Your task to perform on an android device: Add usb-b to the cart on ebay, then select checkout. Image 0: 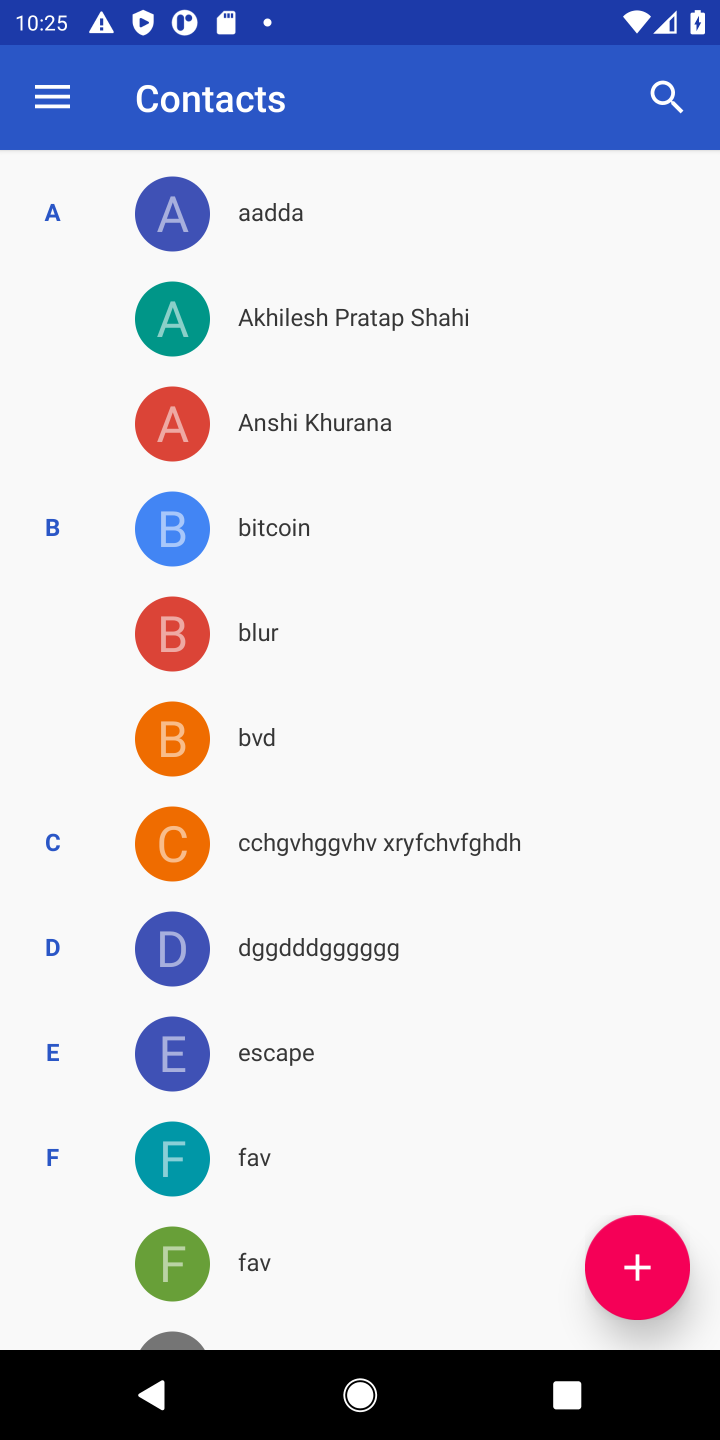
Step 0: press home button
Your task to perform on an android device: Add usb-b to the cart on ebay, then select checkout. Image 1: 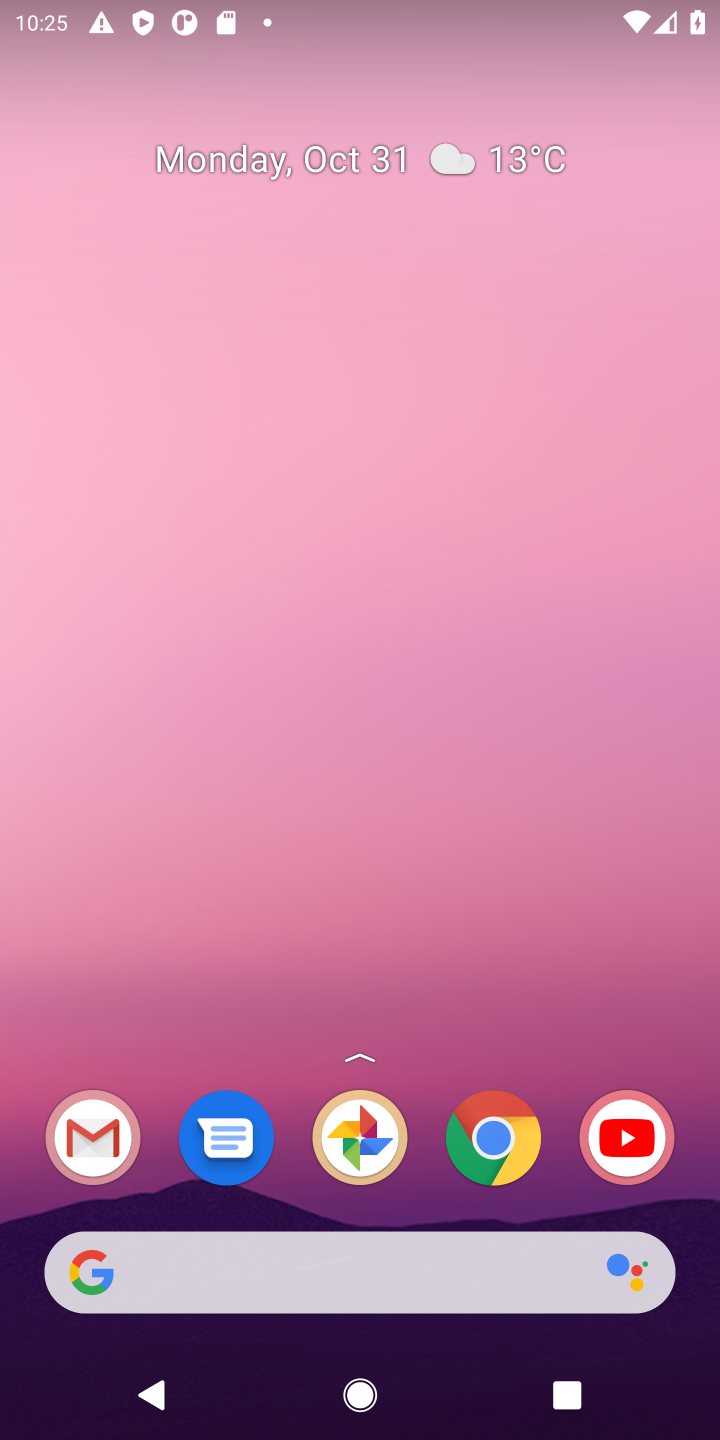
Step 1: click (529, 1133)
Your task to perform on an android device: Add usb-b to the cart on ebay, then select checkout. Image 2: 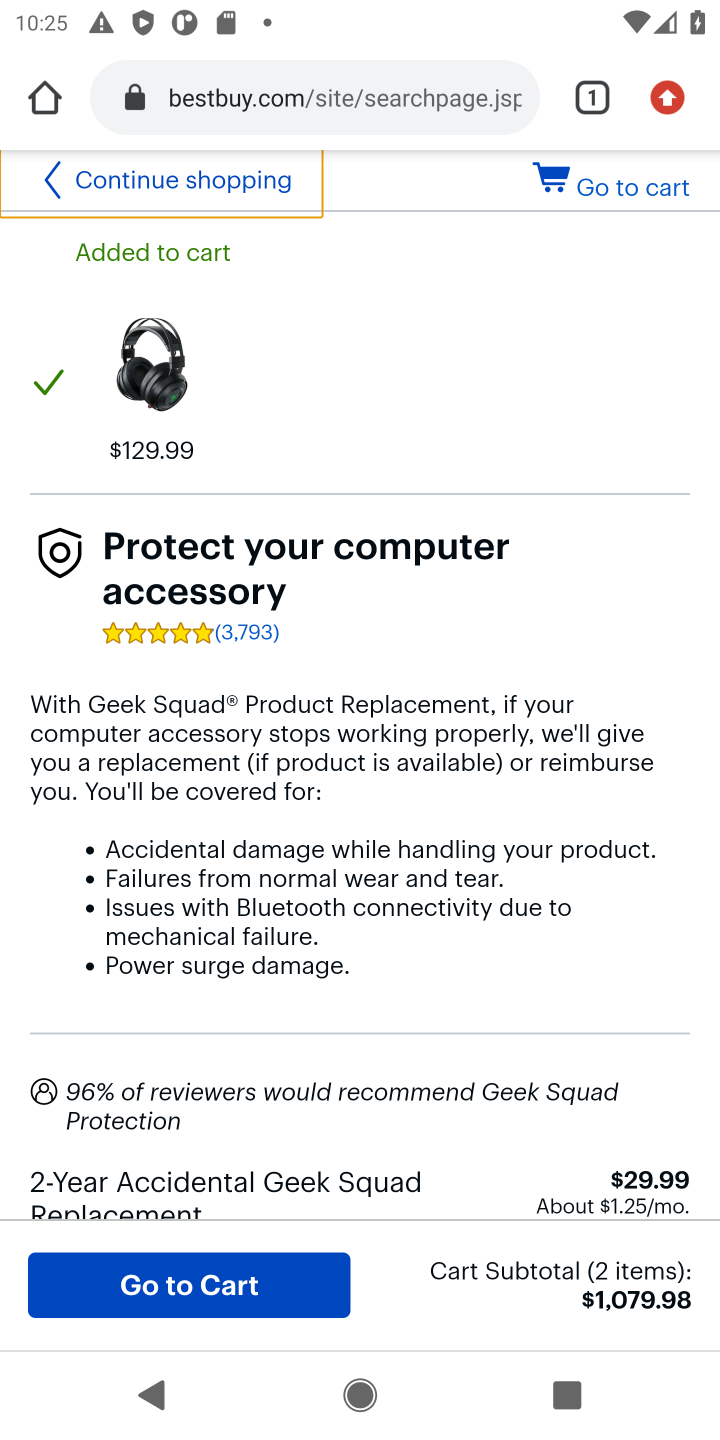
Step 2: click (417, 116)
Your task to perform on an android device: Add usb-b to the cart on ebay, then select checkout. Image 3: 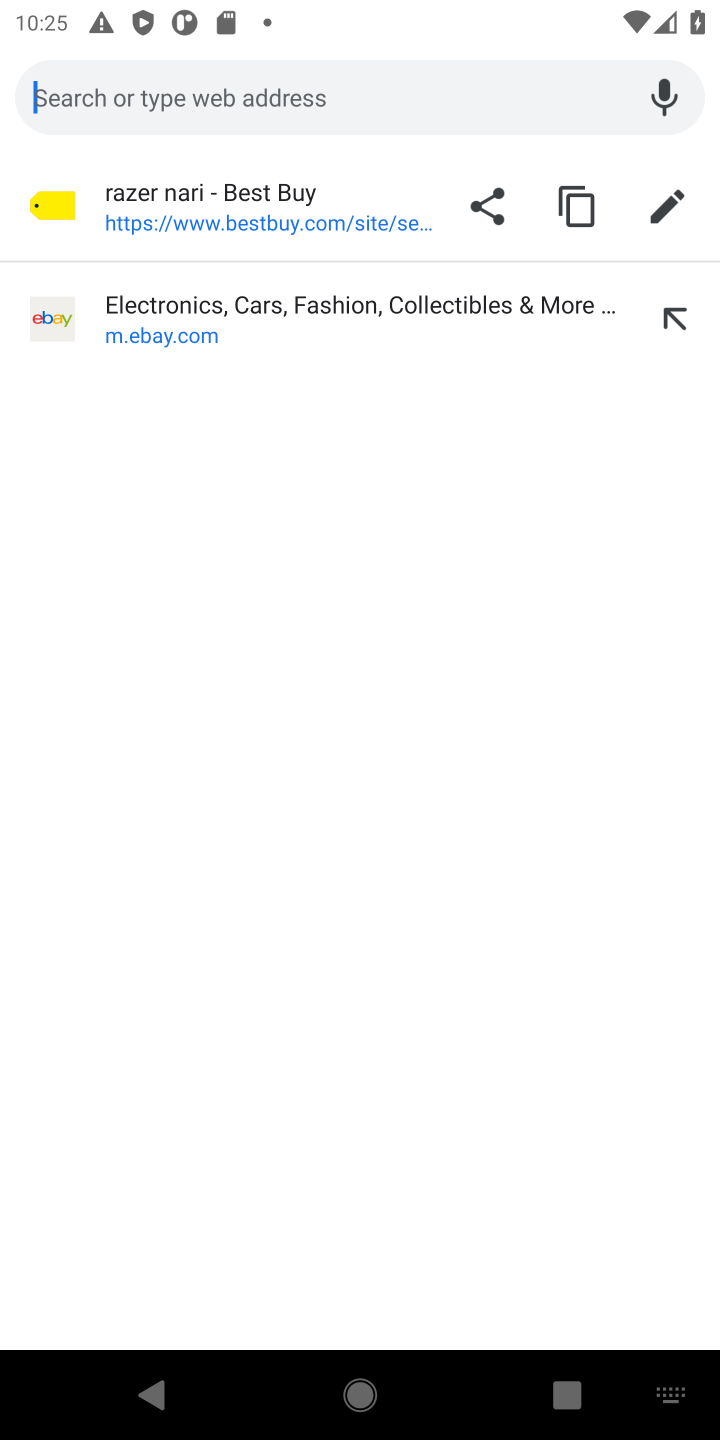
Step 3: click (217, 322)
Your task to perform on an android device: Add usb-b to the cart on ebay, then select checkout. Image 4: 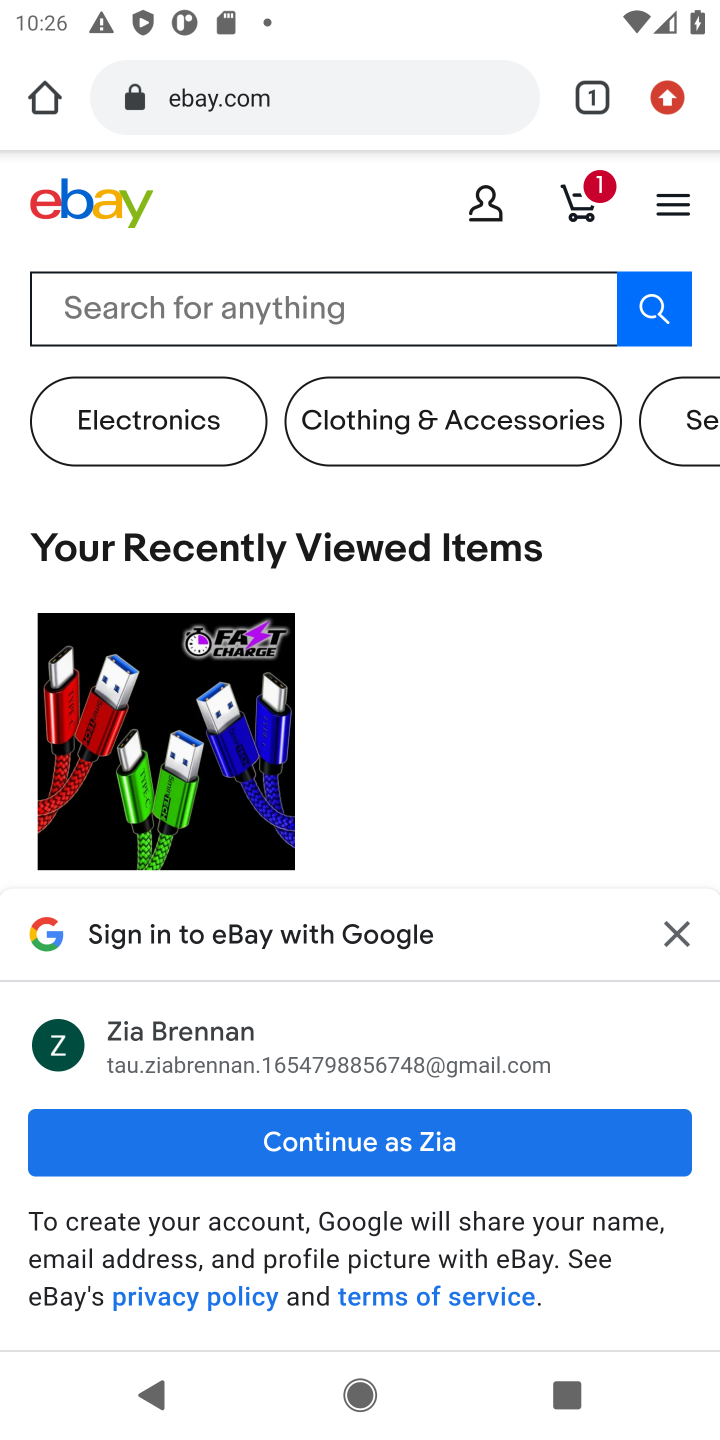
Step 4: click (169, 299)
Your task to perform on an android device: Add usb-b to the cart on ebay, then select checkout. Image 5: 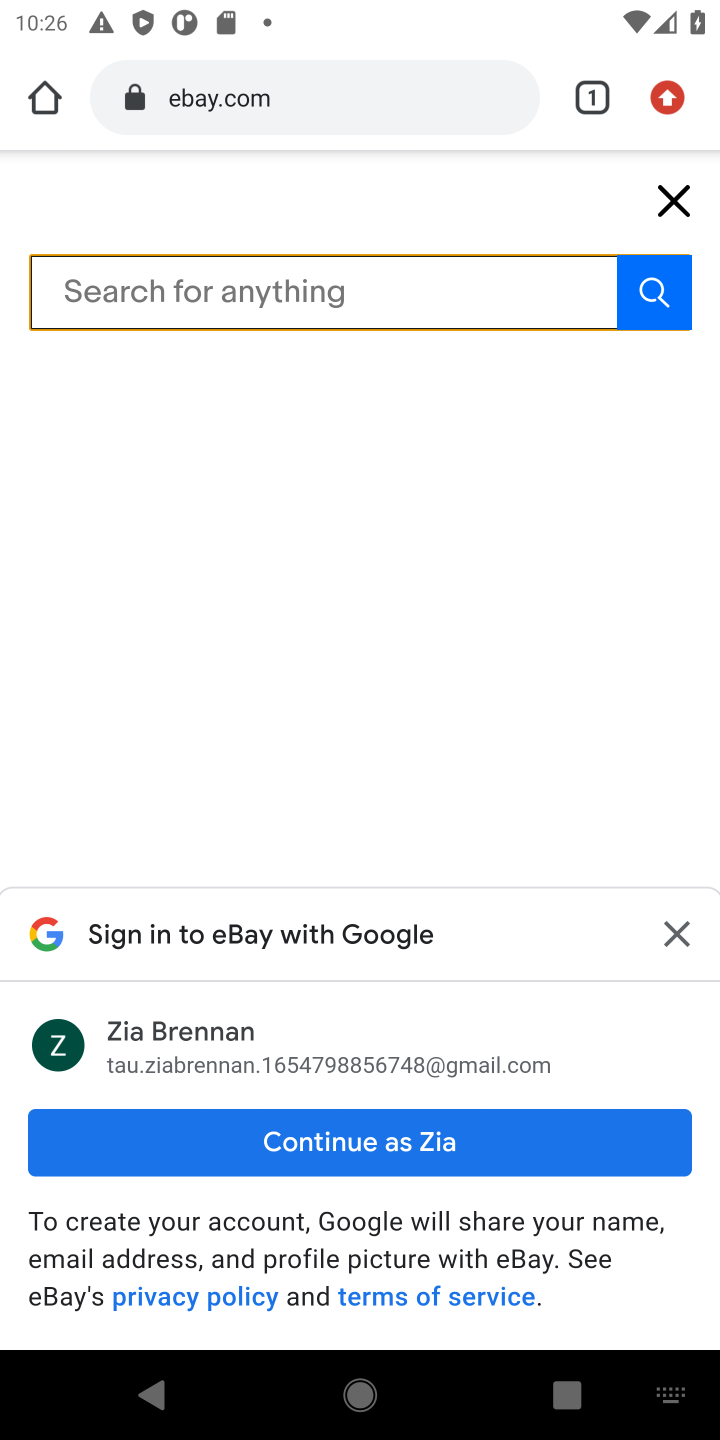
Step 5: type "usb-b "
Your task to perform on an android device: Add usb-b to the cart on ebay, then select checkout. Image 6: 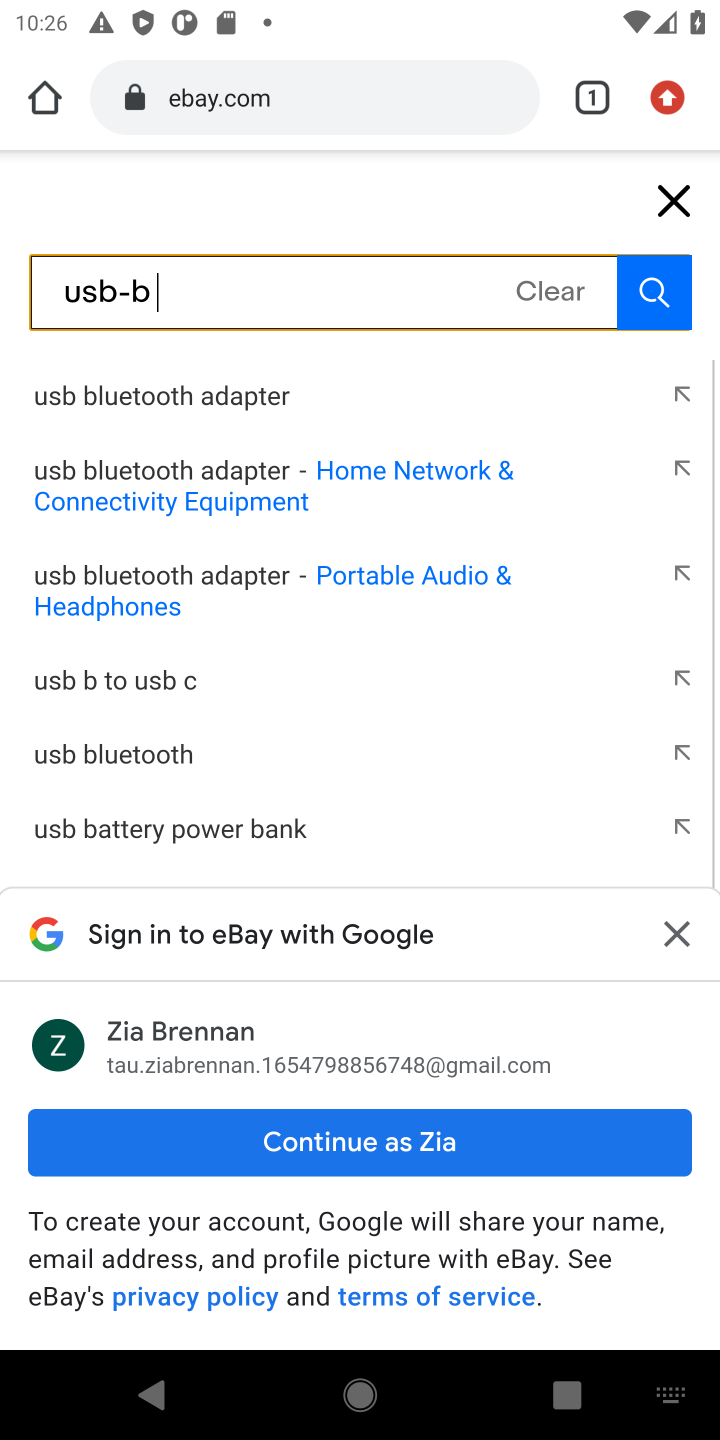
Step 6: type ""
Your task to perform on an android device: Add usb-b to the cart on ebay, then select checkout. Image 7: 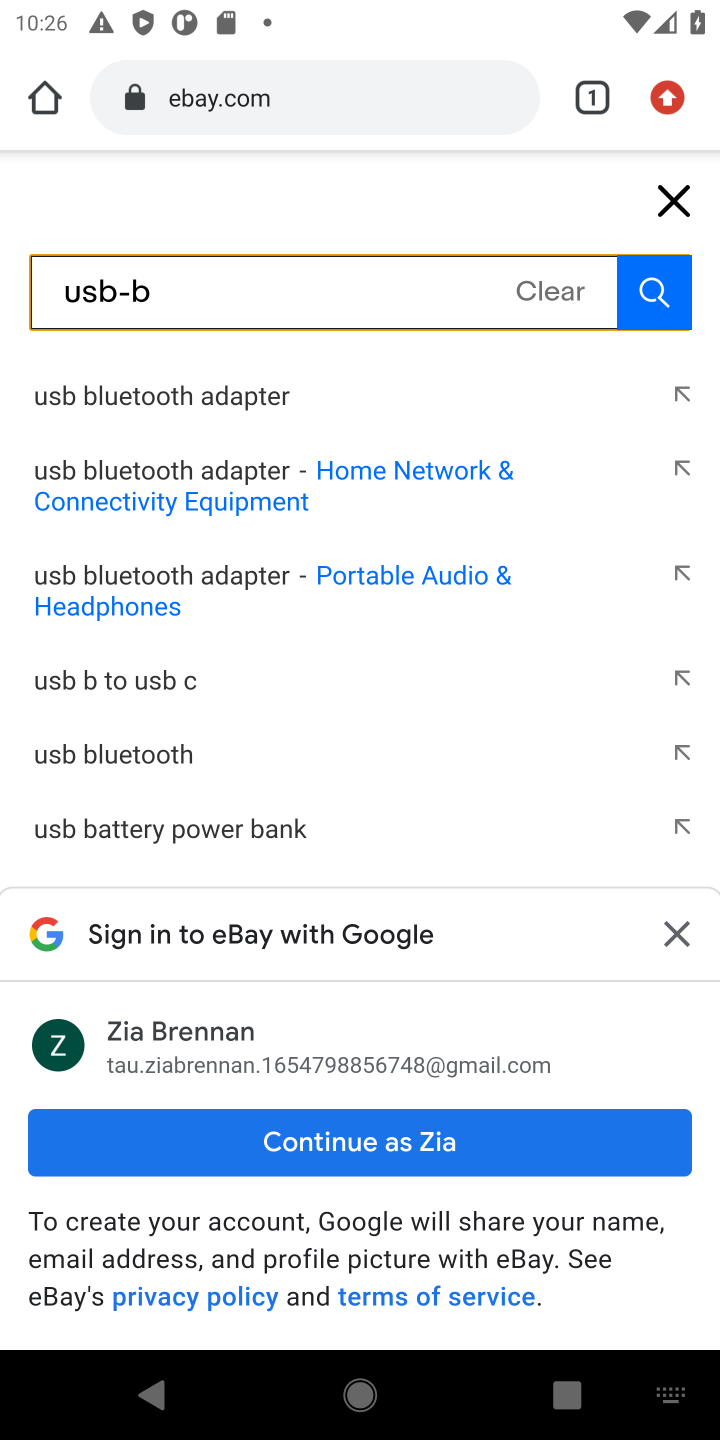
Step 7: click (660, 282)
Your task to perform on an android device: Add usb-b to the cart on ebay, then select checkout. Image 8: 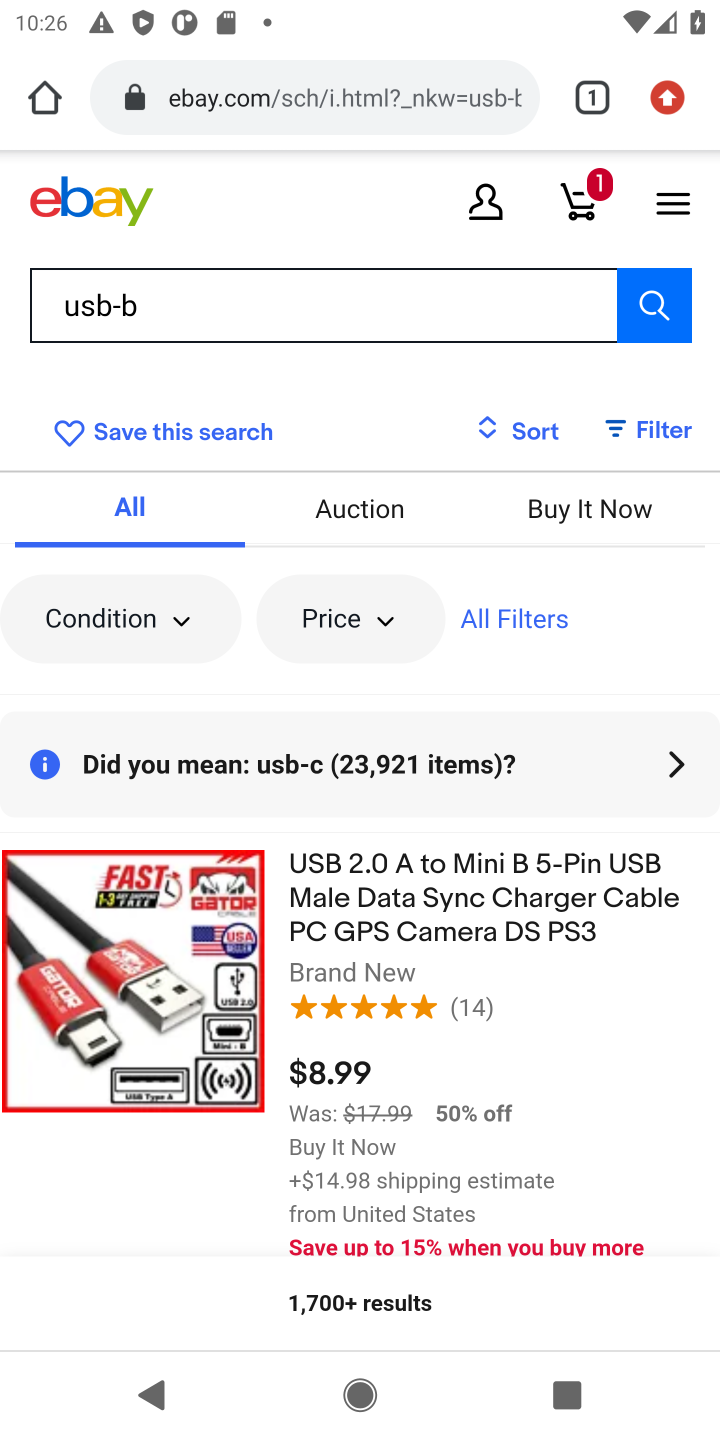
Step 8: click (570, 912)
Your task to perform on an android device: Add usb-b to the cart on ebay, then select checkout. Image 9: 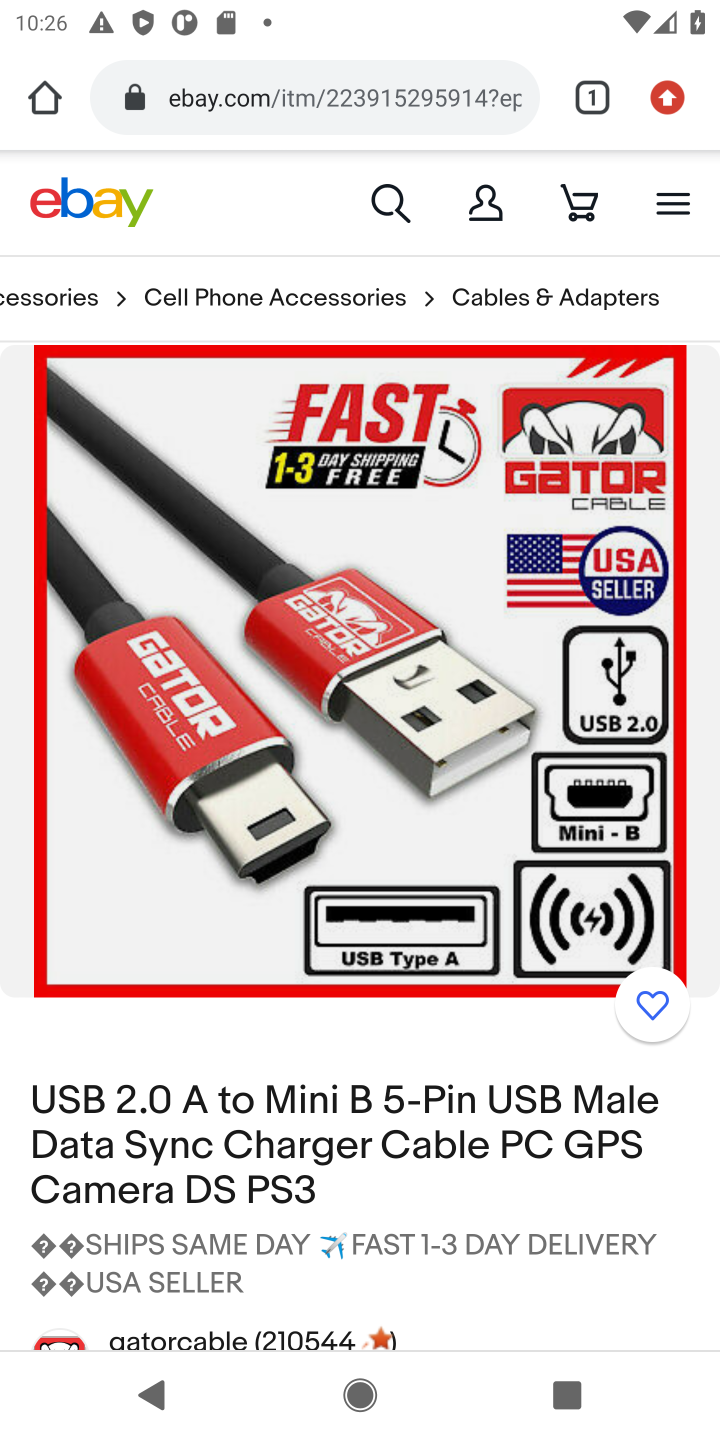
Step 9: drag from (340, 1207) to (350, 564)
Your task to perform on an android device: Add usb-b to the cart on ebay, then select checkout. Image 10: 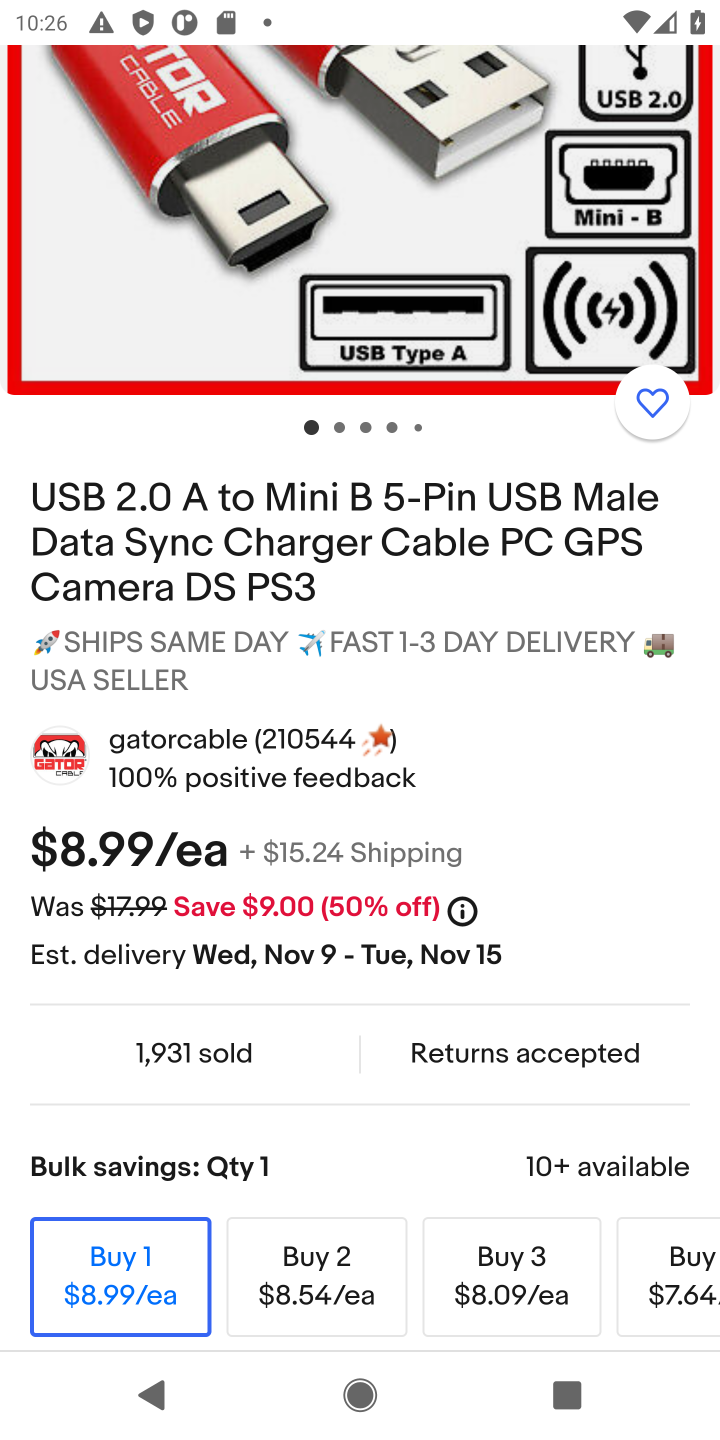
Step 10: drag from (270, 882) to (397, 157)
Your task to perform on an android device: Add usb-b to the cart on ebay, then select checkout. Image 11: 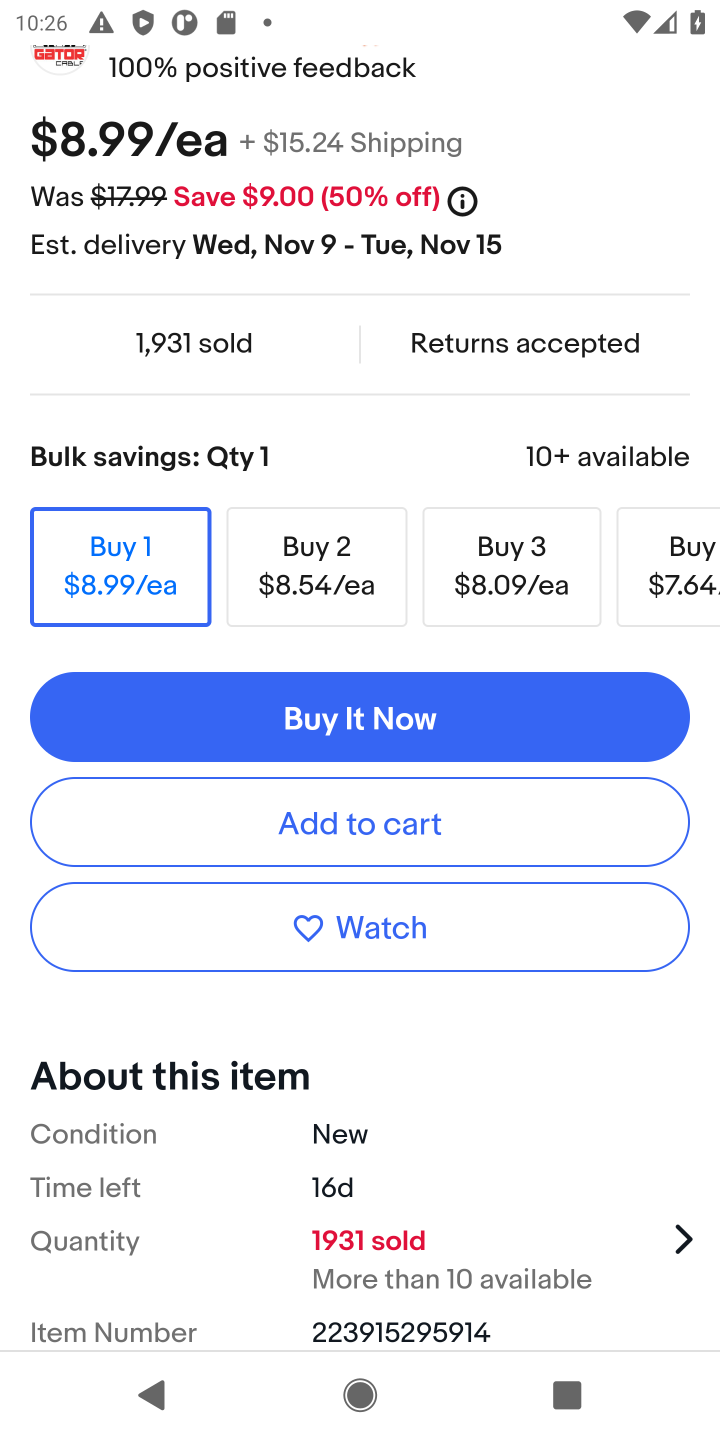
Step 11: click (619, 830)
Your task to perform on an android device: Add usb-b to the cart on ebay, then select checkout. Image 12: 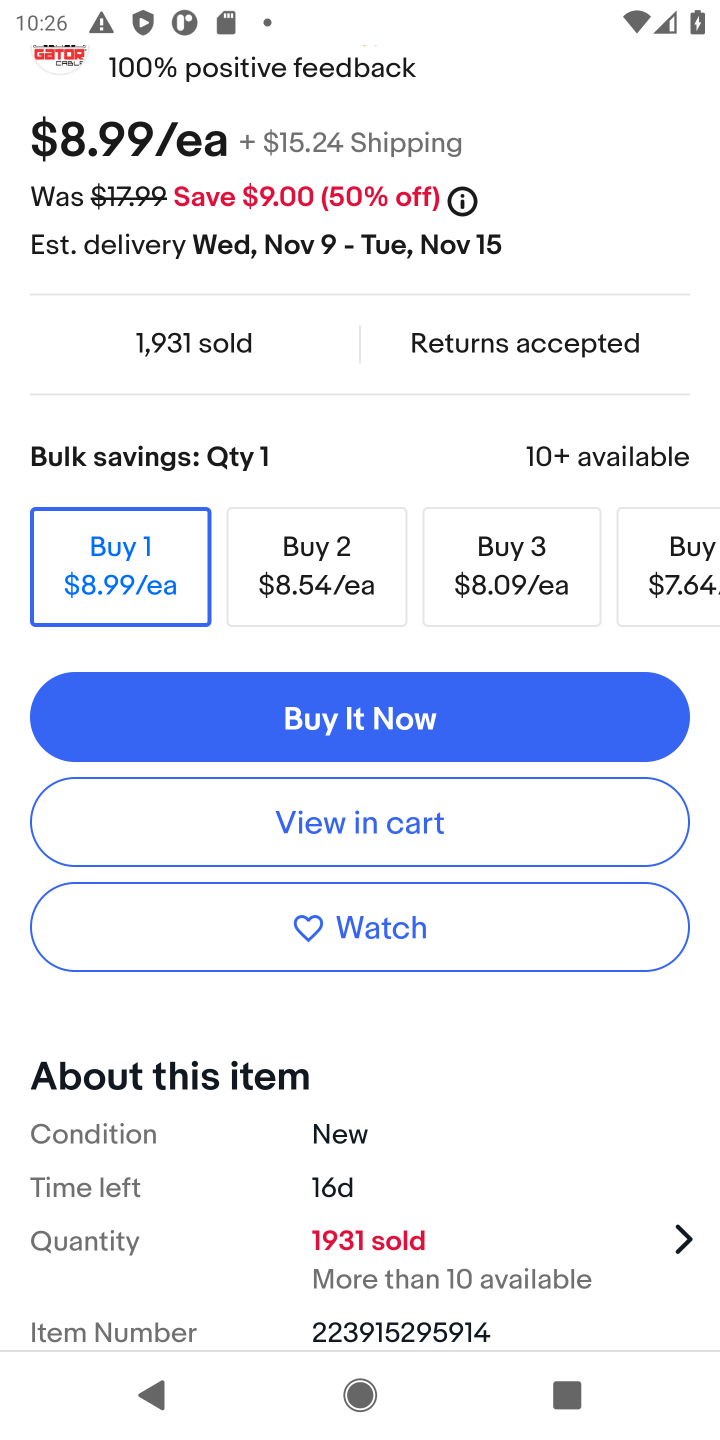
Step 12: click (619, 830)
Your task to perform on an android device: Add usb-b to the cart on ebay, then select checkout. Image 13: 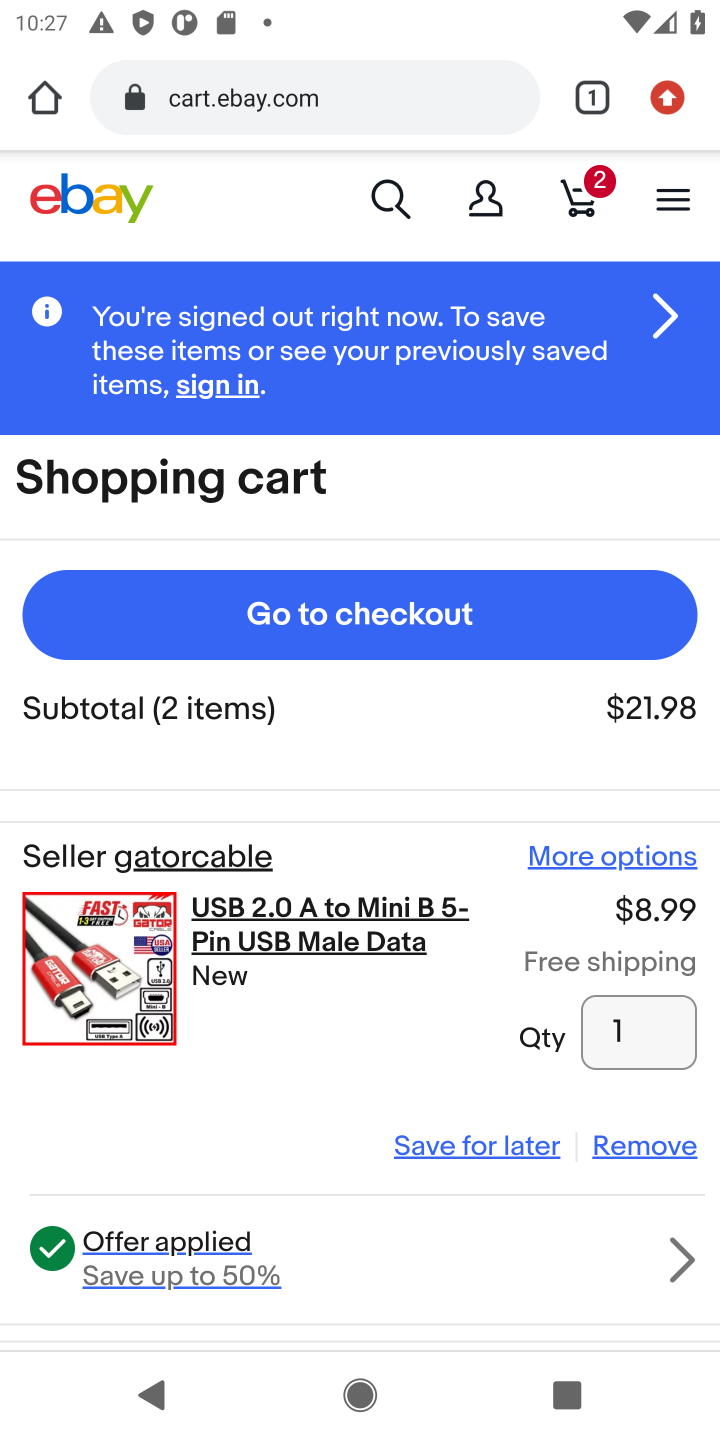
Step 13: click (376, 637)
Your task to perform on an android device: Add usb-b to the cart on ebay, then select checkout. Image 14: 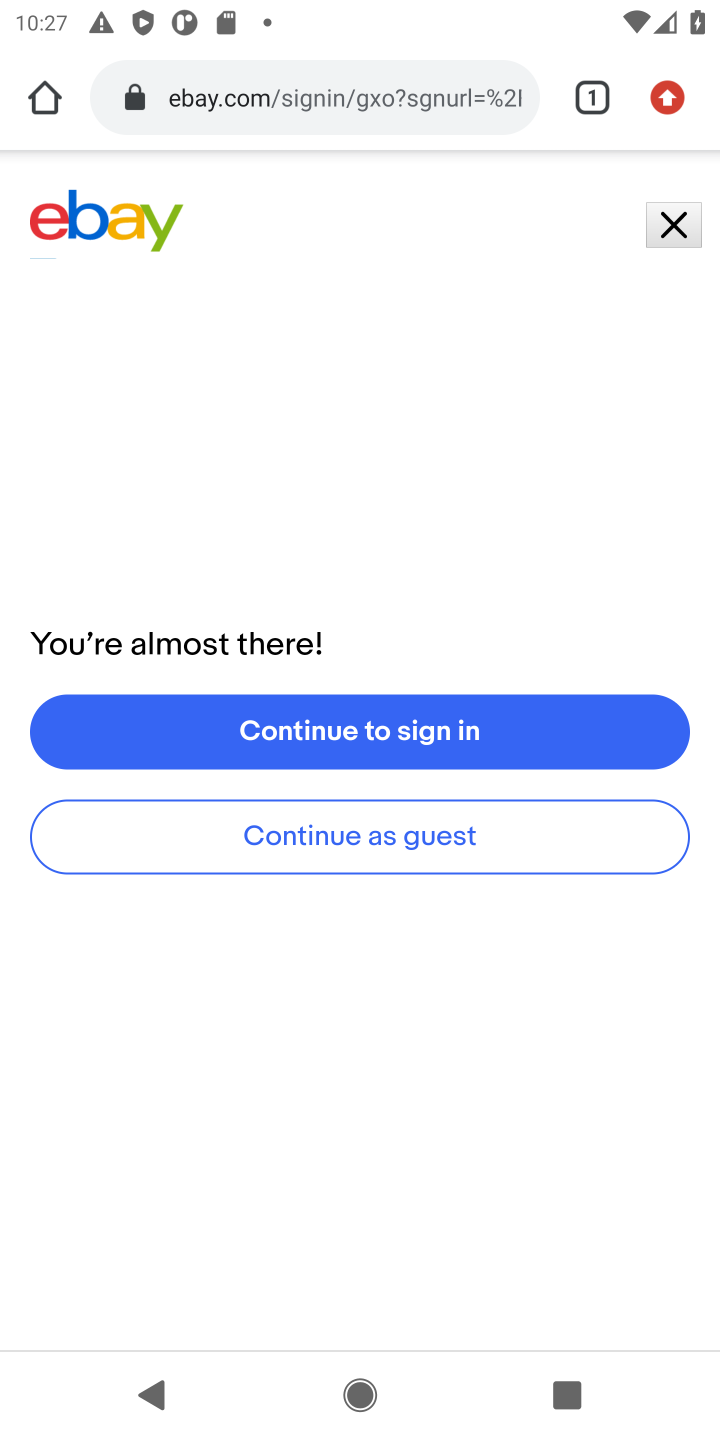
Step 14: task complete